Your task to perform on an android device: Open Youtube and go to the subscriptions tab Image 0: 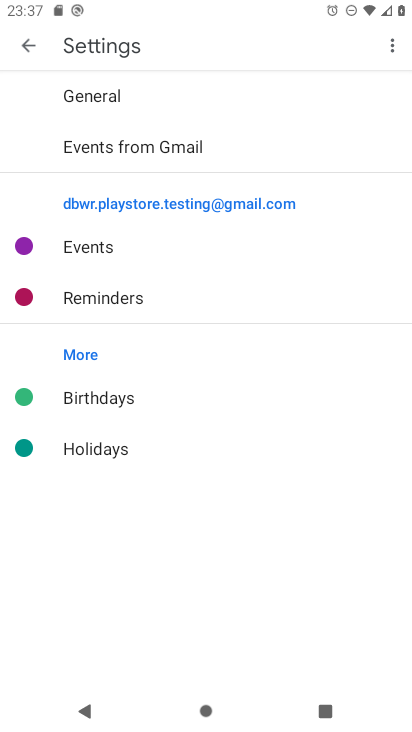
Step 0: press home button
Your task to perform on an android device: Open Youtube and go to the subscriptions tab Image 1: 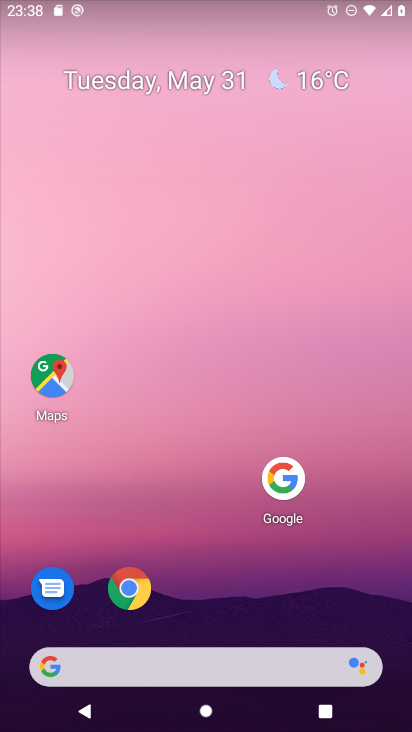
Step 1: drag from (147, 675) to (276, 228)
Your task to perform on an android device: Open Youtube and go to the subscriptions tab Image 2: 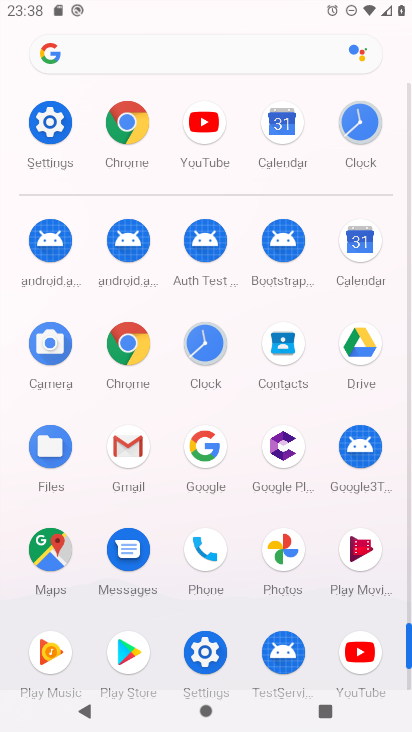
Step 2: click (361, 648)
Your task to perform on an android device: Open Youtube and go to the subscriptions tab Image 3: 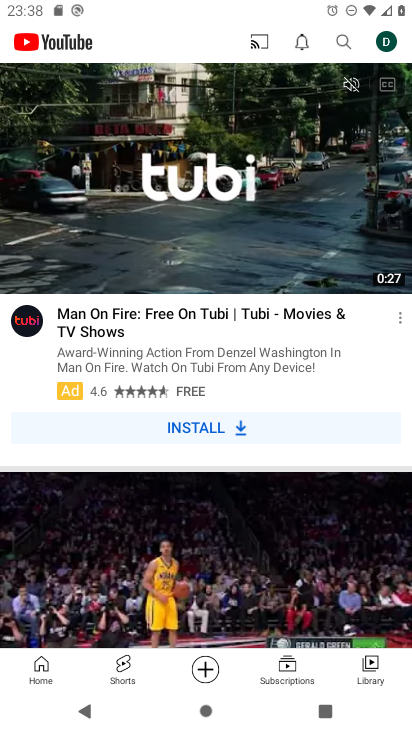
Step 3: click (302, 681)
Your task to perform on an android device: Open Youtube and go to the subscriptions tab Image 4: 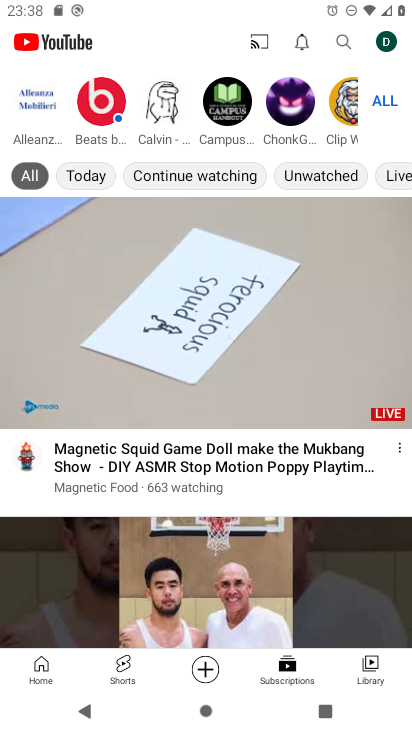
Step 4: task complete